Your task to perform on an android device: Show me productivity apps on the Play Store Image 0: 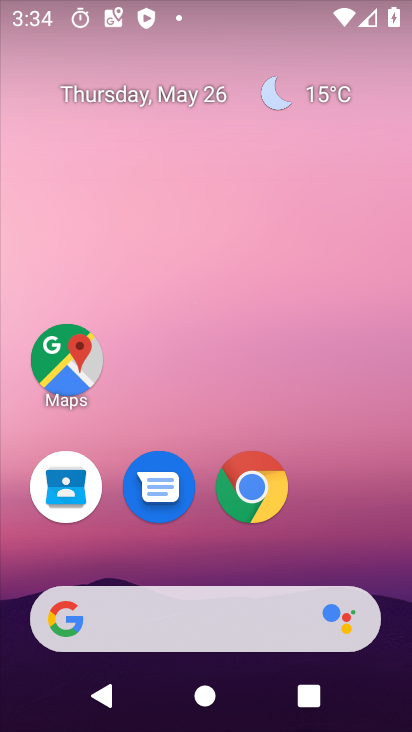
Step 0: drag from (191, 559) to (229, 130)
Your task to perform on an android device: Show me productivity apps on the Play Store Image 1: 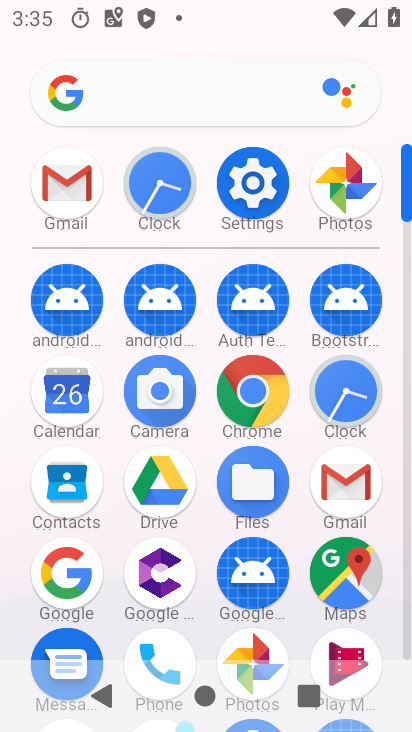
Step 1: drag from (204, 624) to (247, 314)
Your task to perform on an android device: Show me productivity apps on the Play Store Image 2: 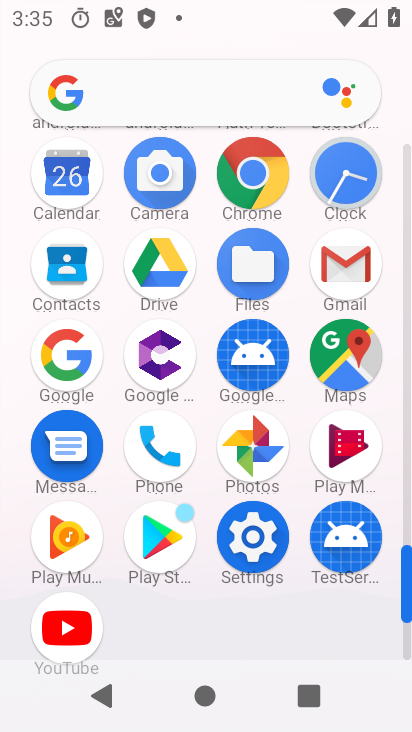
Step 2: click (175, 566)
Your task to perform on an android device: Show me productivity apps on the Play Store Image 3: 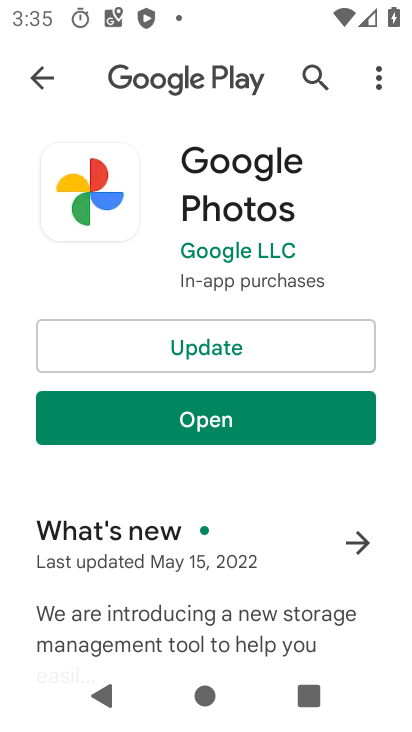
Step 3: click (38, 76)
Your task to perform on an android device: Show me productivity apps on the Play Store Image 4: 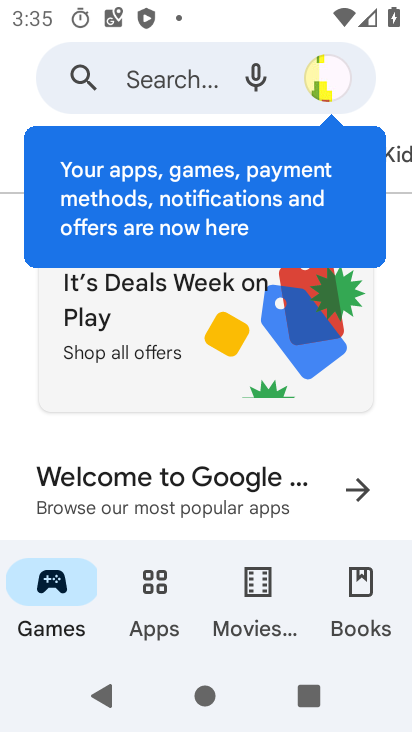
Step 4: click (162, 597)
Your task to perform on an android device: Show me productivity apps on the Play Store Image 5: 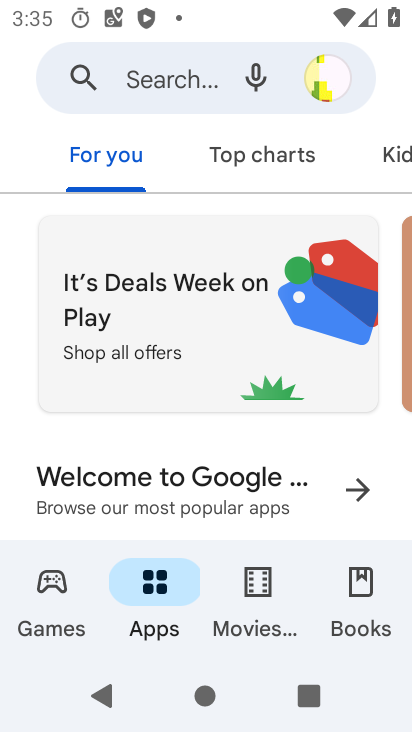
Step 5: drag from (330, 161) to (99, 165)
Your task to perform on an android device: Show me productivity apps on the Play Store Image 6: 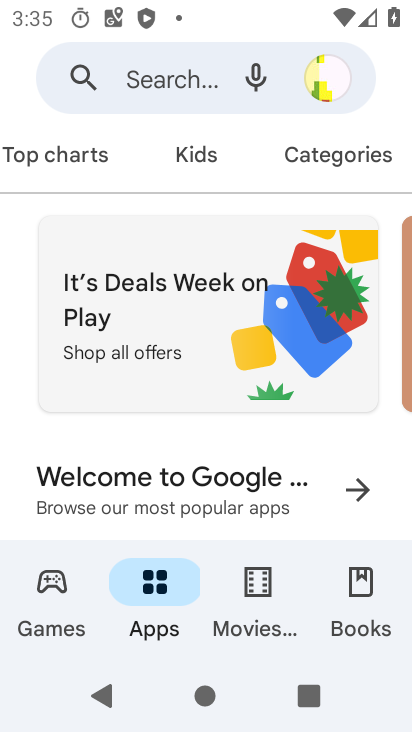
Step 6: click (300, 157)
Your task to perform on an android device: Show me productivity apps on the Play Store Image 7: 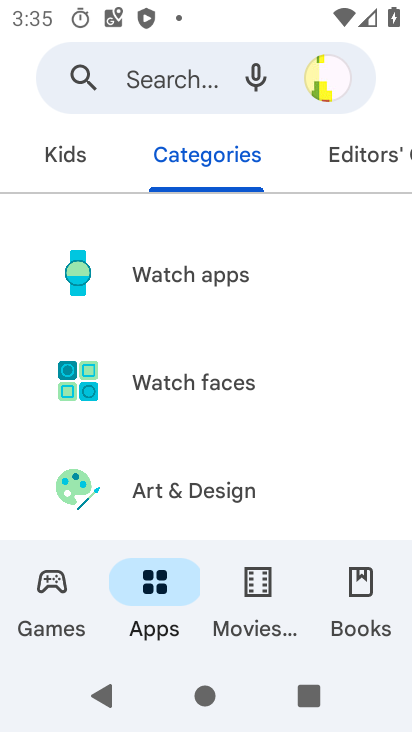
Step 7: drag from (236, 491) to (245, 208)
Your task to perform on an android device: Show me productivity apps on the Play Store Image 8: 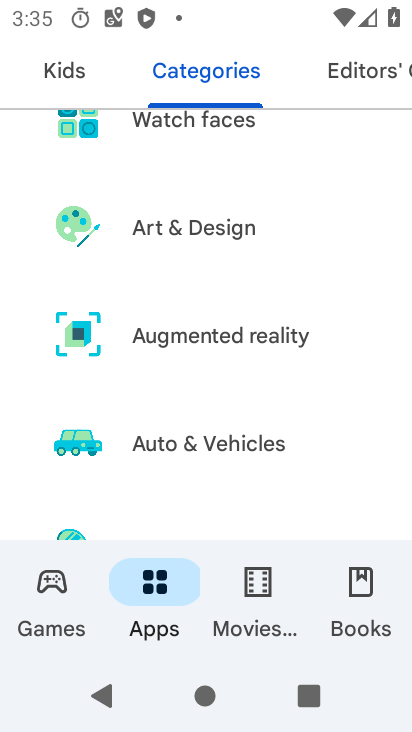
Step 8: drag from (236, 421) to (238, 210)
Your task to perform on an android device: Show me productivity apps on the Play Store Image 9: 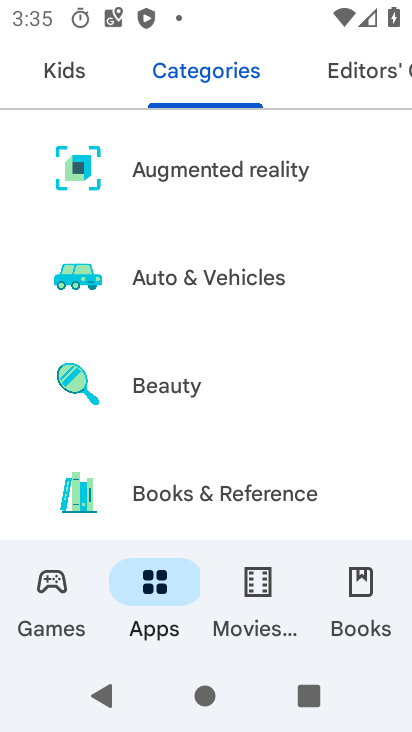
Step 9: drag from (256, 421) to (264, 207)
Your task to perform on an android device: Show me productivity apps on the Play Store Image 10: 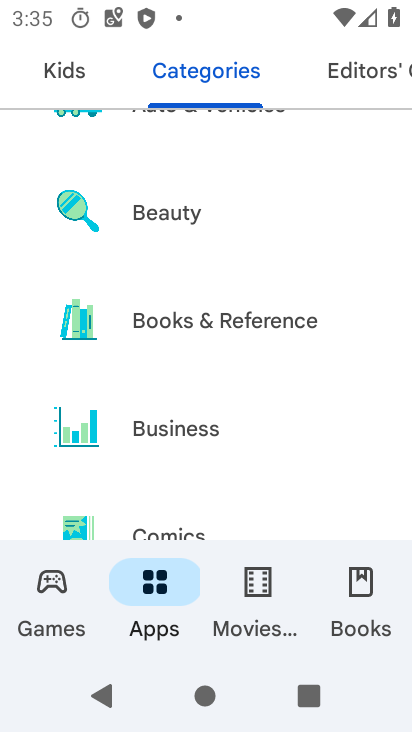
Step 10: drag from (271, 407) to (277, 186)
Your task to perform on an android device: Show me productivity apps on the Play Store Image 11: 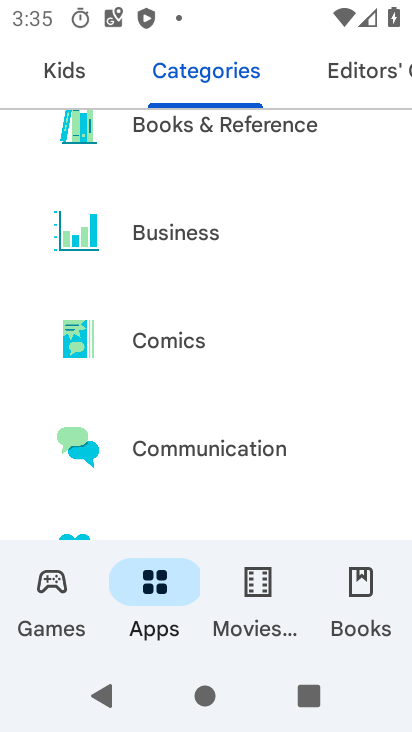
Step 11: drag from (262, 420) to (274, 193)
Your task to perform on an android device: Show me productivity apps on the Play Store Image 12: 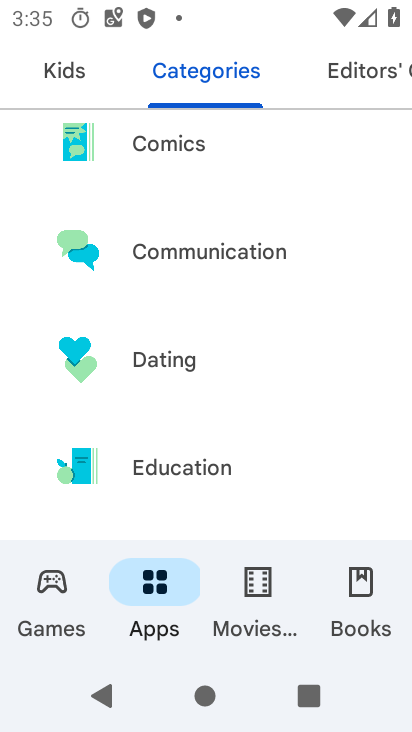
Step 12: drag from (277, 429) to (282, 186)
Your task to perform on an android device: Show me productivity apps on the Play Store Image 13: 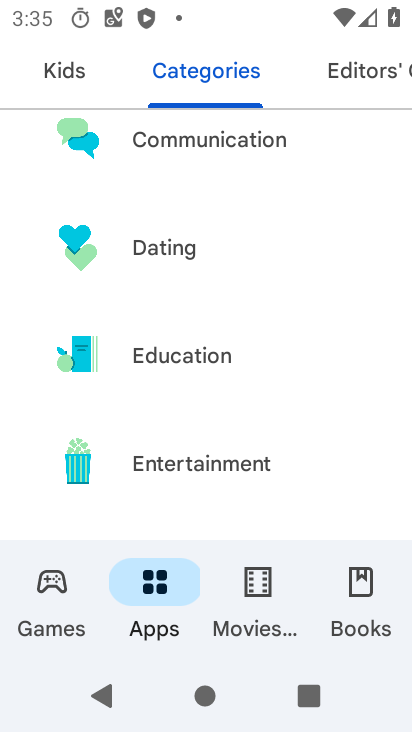
Step 13: drag from (297, 397) to (303, 185)
Your task to perform on an android device: Show me productivity apps on the Play Store Image 14: 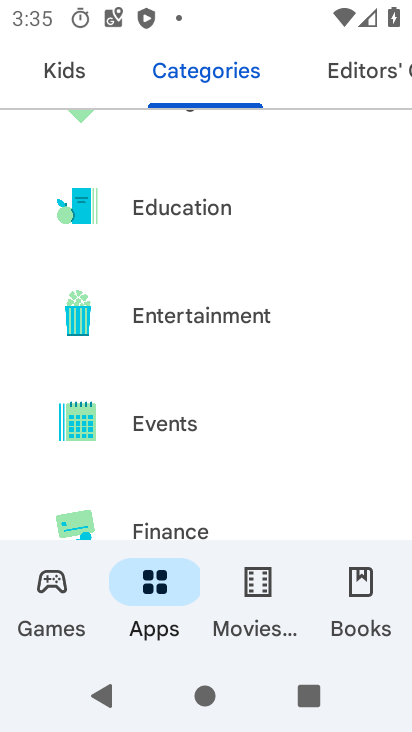
Step 14: drag from (279, 456) to (275, 225)
Your task to perform on an android device: Show me productivity apps on the Play Store Image 15: 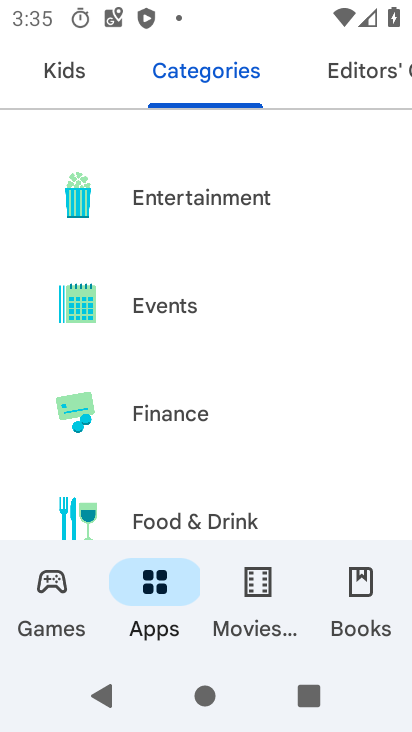
Step 15: drag from (275, 414) to (280, 200)
Your task to perform on an android device: Show me productivity apps on the Play Store Image 16: 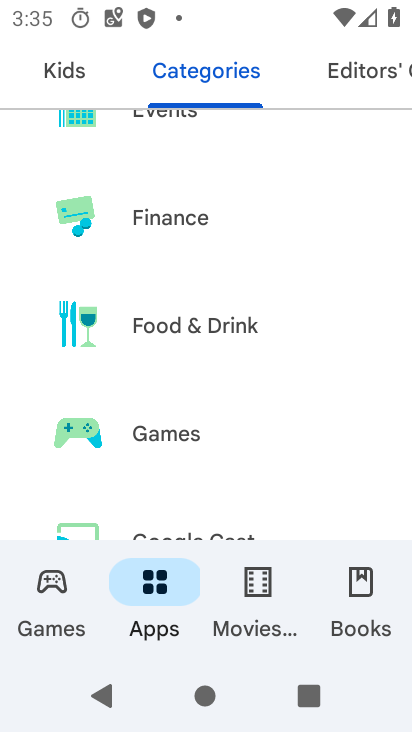
Step 16: drag from (280, 389) to (287, 203)
Your task to perform on an android device: Show me productivity apps on the Play Store Image 17: 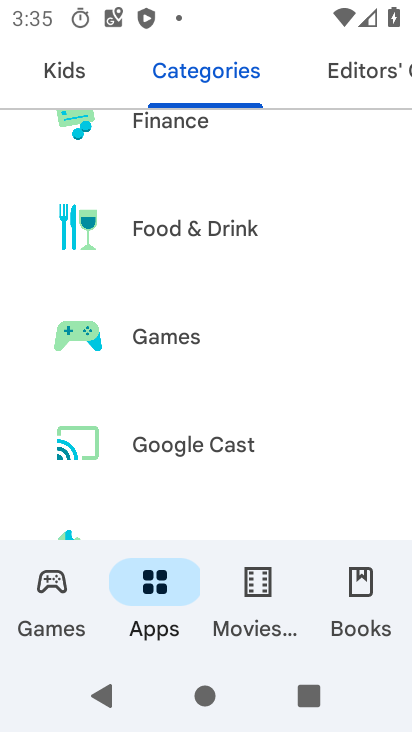
Step 17: drag from (270, 406) to (280, 193)
Your task to perform on an android device: Show me productivity apps on the Play Store Image 18: 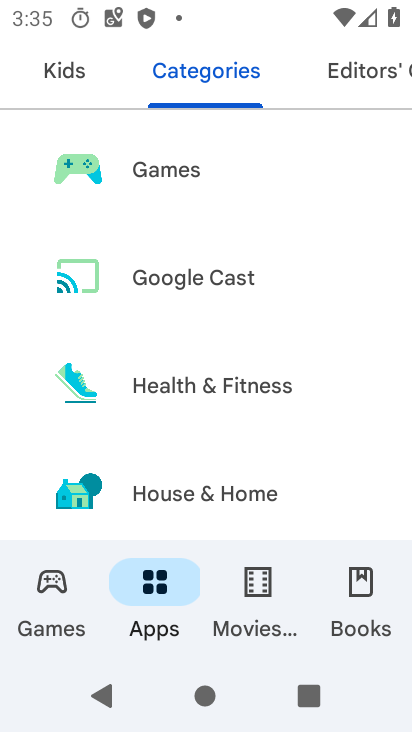
Step 18: drag from (280, 370) to (290, 146)
Your task to perform on an android device: Show me productivity apps on the Play Store Image 19: 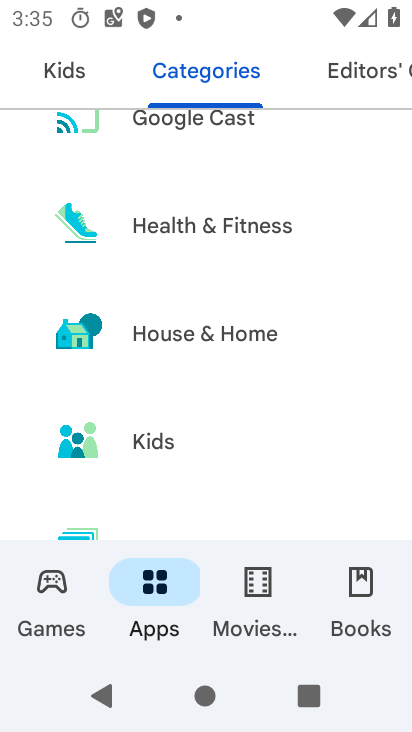
Step 19: drag from (289, 433) to (301, 165)
Your task to perform on an android device: Show me productivity apps on the Play Store Image 20: 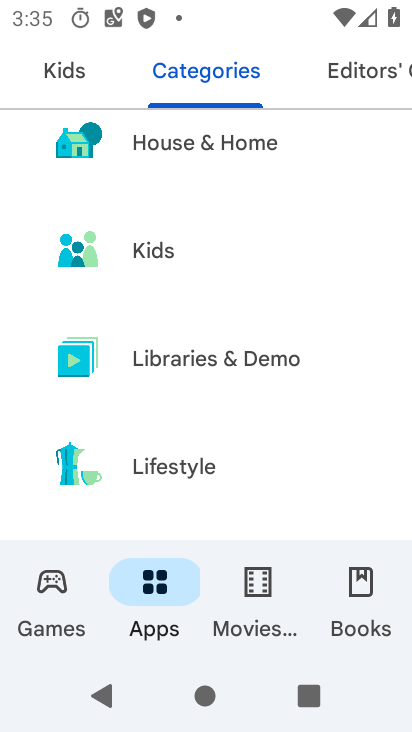
Step 20: drag from (270, 434) to (293, 213)
Your task to perform on an android device: Show me productivity apps on the Play Store Image 21: 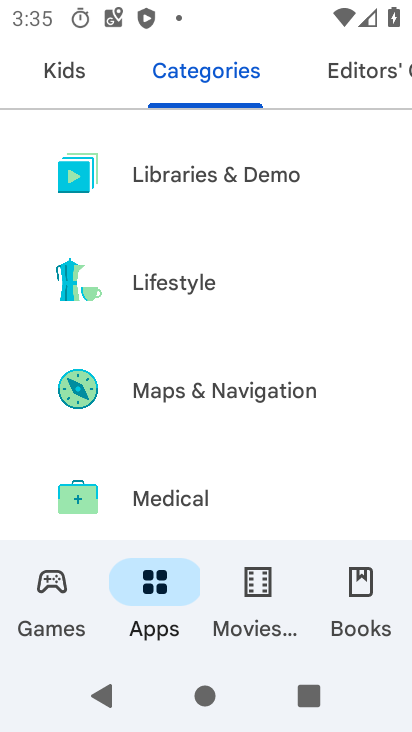
Step 21: drag from (268, 408) to (289, 170)
Your task to perform on an android device: Show me productivity apps on the Play Store Image 22: 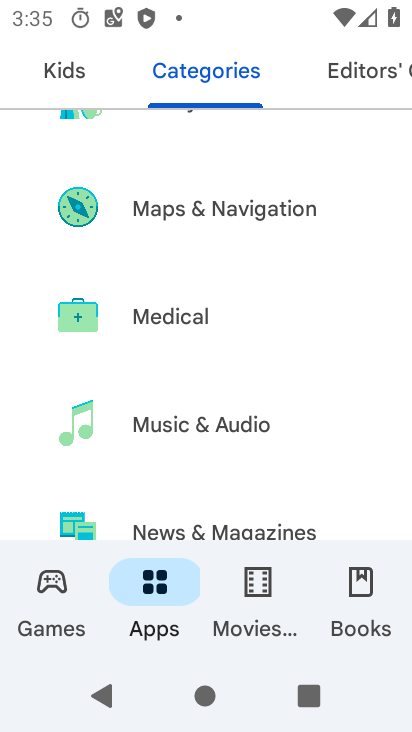
Step 22: drag from (280, 476) to (295, 237)
Your task to perform on an android device: Show me productivity apps on the Play Store Image 23: 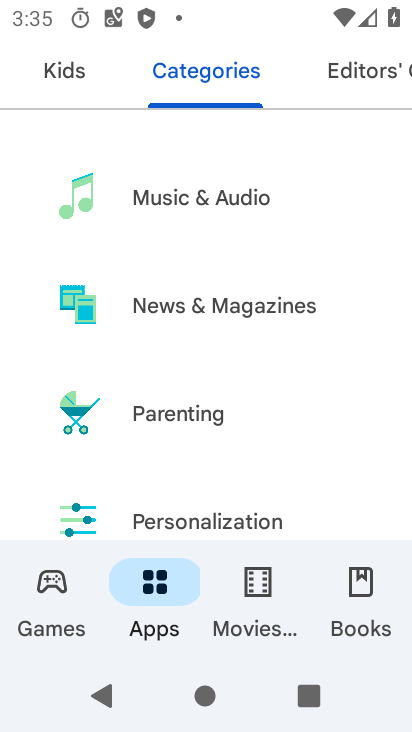
Step 23: drag from (220, 452) to (244, 251)
Your task to perform on an android device: Show me productivity apps on the Play Store Image 24: 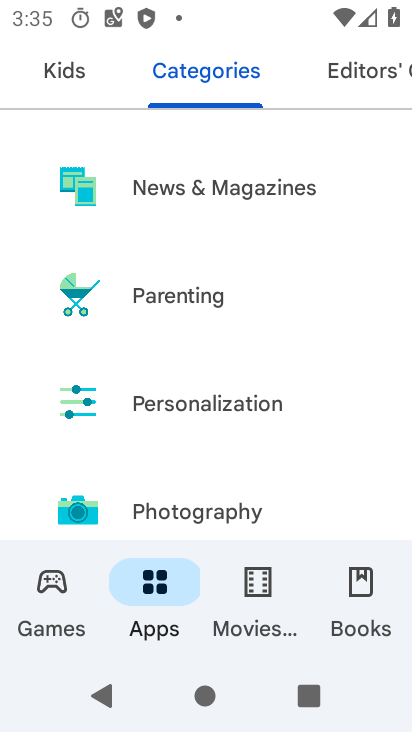
Step 24: drag from (227, 478) to (247, 235)
Your task to perform on an android device: Show me productivity apps on the Play Store Image 25: 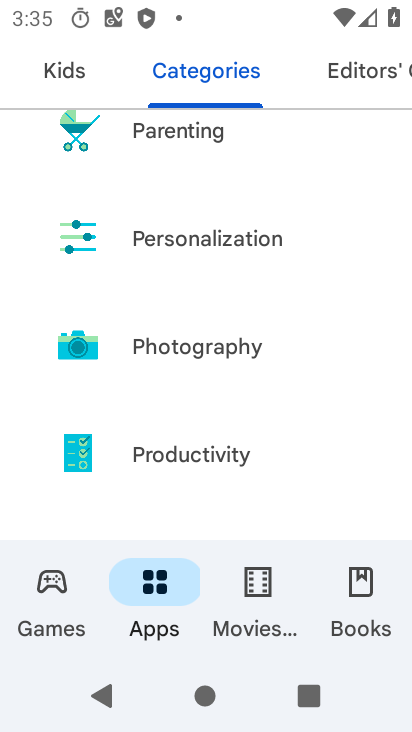
Step 25: click (227, 443)
Your task to perform on an android device: Show me productivity apps on the Play Store Image 26: 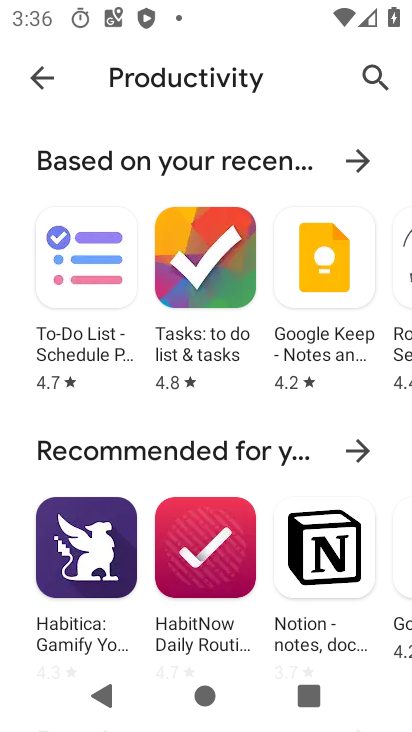
Step 26: task complete